Your task to perform on an android device: What's on the menu at McDonalds? Image 0: 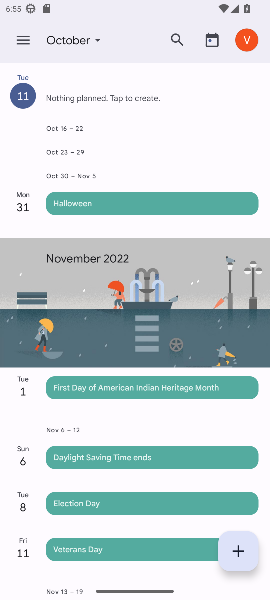
Step 0: press home button
Your task to perform on an android device: What's on the menu at McDonalds? Image 1: 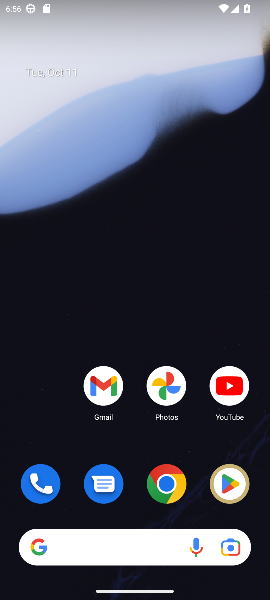
Step 1: click (164, 484)
Your task to perform on an android device: What's on the menu at McDonalds? Image 2: 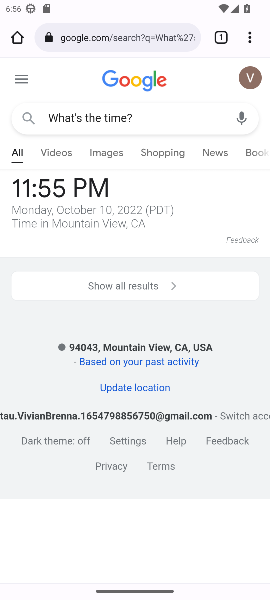
Step 2: click (136, 30)
Your task to perform on an android device: What's on the menu at McDonalds? Image 3: 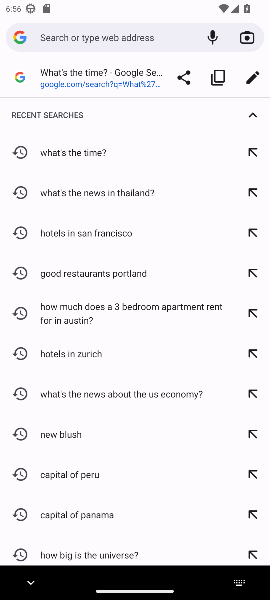
Step 3: type "What's on the menu at McDonalds?"
Your task to perform on an android device: What's on the menu at McDonalds? Image 4: 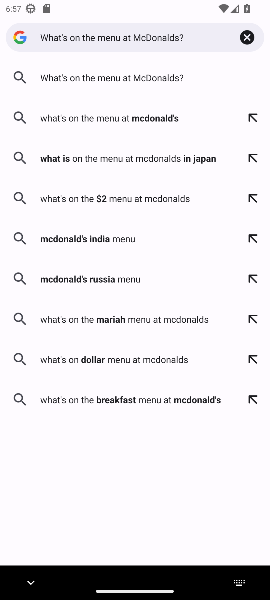
Step 4: click (141, 78)
Your task to perform on an android device: What's on the menu at McDonalds? Image 5: 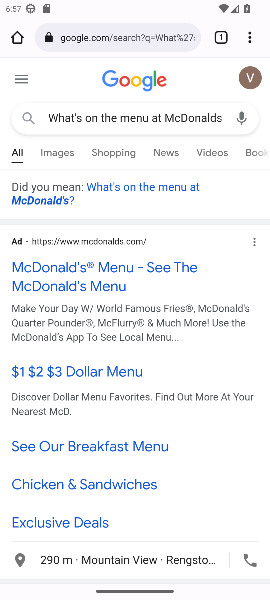
Step 5: drag from (91, 429) to (173, 260)
Your task to perform on an android device: What's on the menu at McDonalds? Image 6: 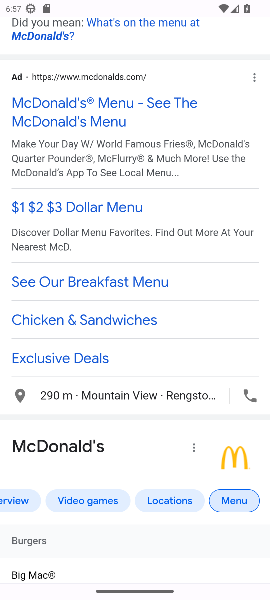
Step 6: drag from (139, 526) to (226, 325)
Your task to perform on an android device: What's on the menu at McDonalds? Image 7: 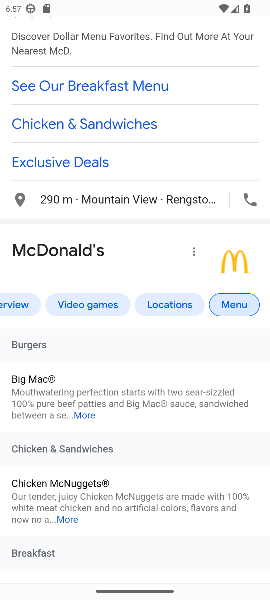
Step 7: drag from (133, 514) to (216, 393)
Your task to perform on an android device: What's on the menu at McDonalds? Image 8: 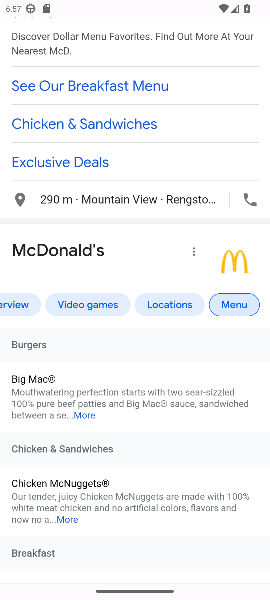
Step 8: drag from (143, 484) to (150, 338)
Your task to perform on an android device: What's on the menu at McDonalds? Image 9: 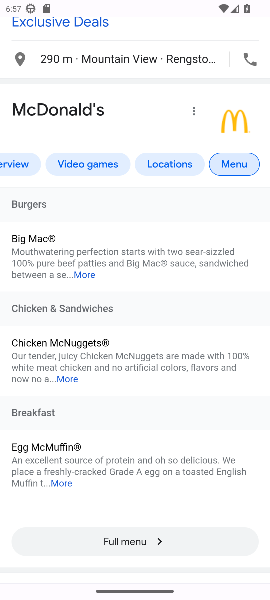
Step 9: click (128, 542)
Your task to perform on an android device: What's on the menu at McDonalds? Image 10: 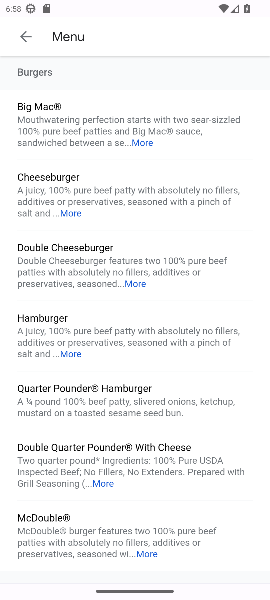
Step 10: task complete